Your task to perform on an android device: Open internet settings Image 0: 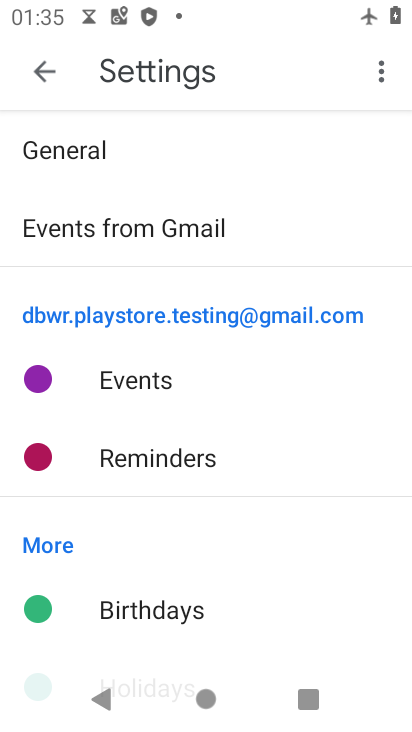
Step 0: press home button
Your task to perform on an android device: Open internet settings Image 1: 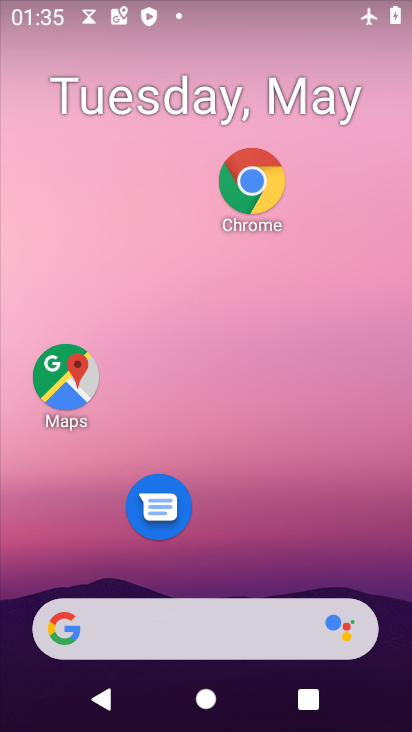
Step 1: drag from (268, 526) to (257, 253)
Your task to perform on an android device: Open internet settings Image 2: 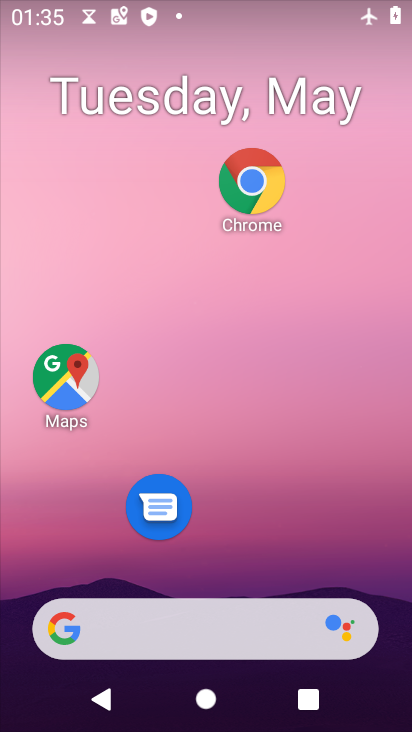
Step 2: drag from (296, 576) to (294, 239)
Your task to perform on an android device: Open internet settings Image 3: 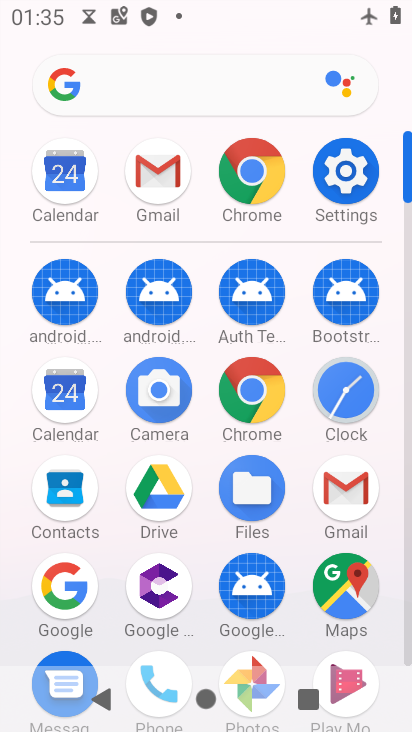
Step 3: click (338, 168)
Your task to perform on an android device: Open internet settings Image 4: 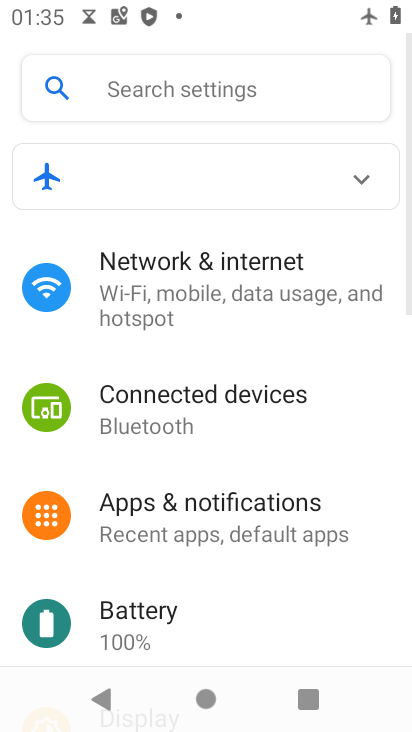
Step 4: click (181, 285)
Your task to perform on an android device: Open internet settings Image 5: 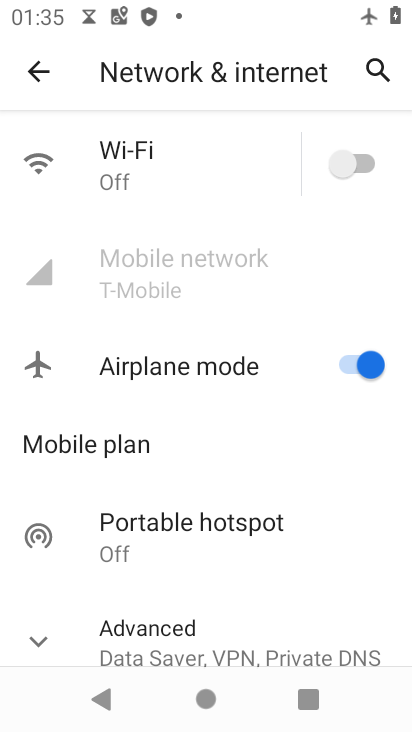
Step 5: task complete